Your task to perform on an android device: Set an alarm for 8pm Image 0: 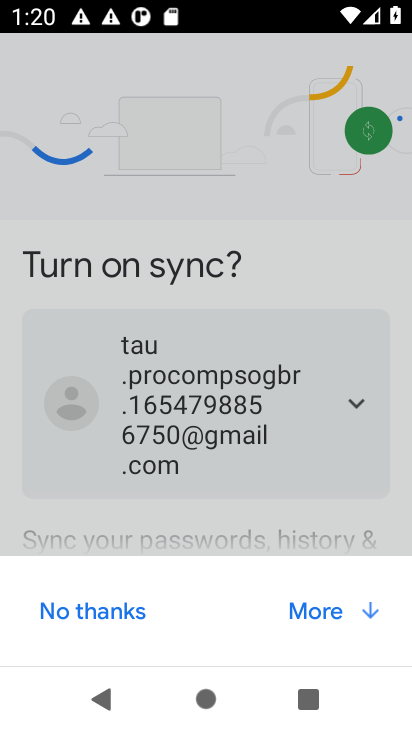
Step 0: press home button
Your task to perform on an android device: Set an alarm for 8pm Image 1: 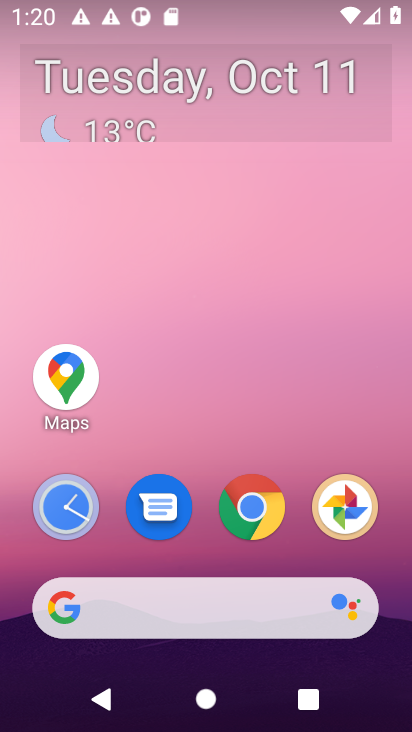
Step 1: click (77, 501)
Your task to perform on an android device: Set an alarm for 8pm Image 2: 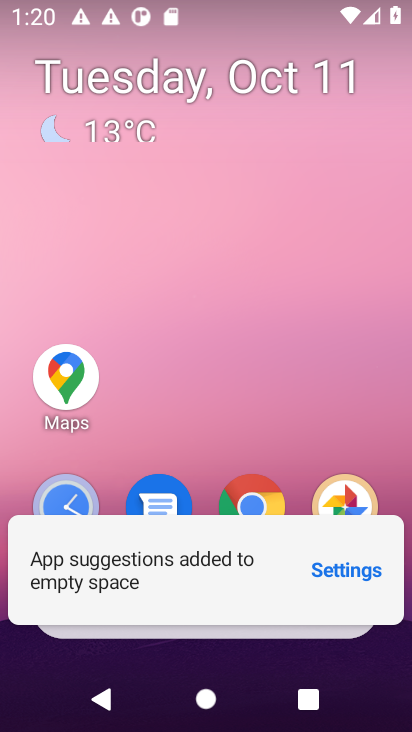
Step 2: click (248, 336)
Your task to perform on an android device: Set an alarm for 8pm Image 3: 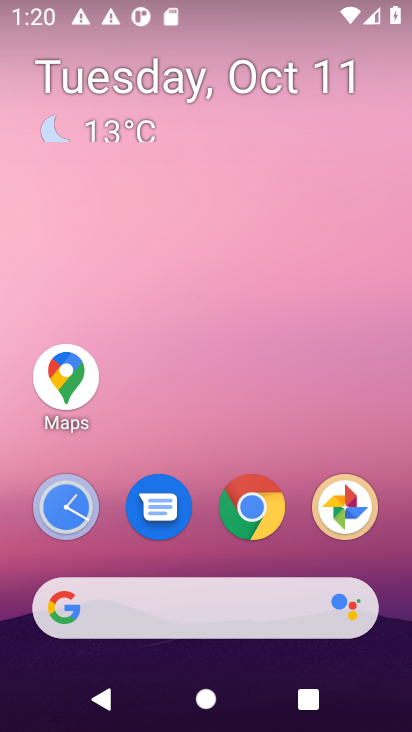
Step 3: drag from (206, 556) to (232, 43)
Your task to perform on an android device: Set an alarm for 8pm Image 4: 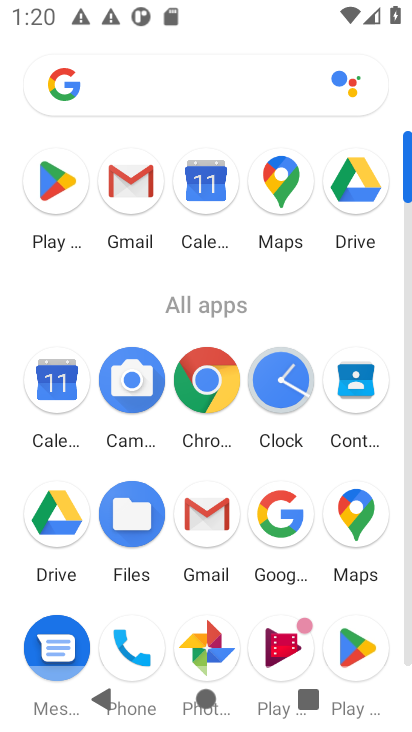
Step 4: click (276, 399)
Your task to perform on an android device: Set an alarm for 8pm Image 5: 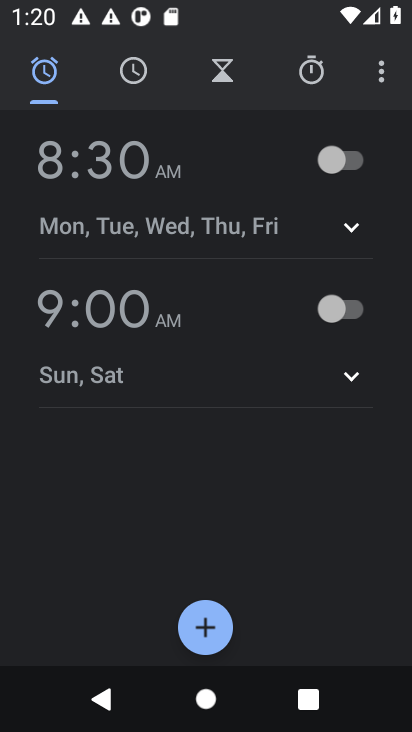
Step 5: click (210, 625)
Your task to perform on an android device: Set an alarm for 8pm Image 6: 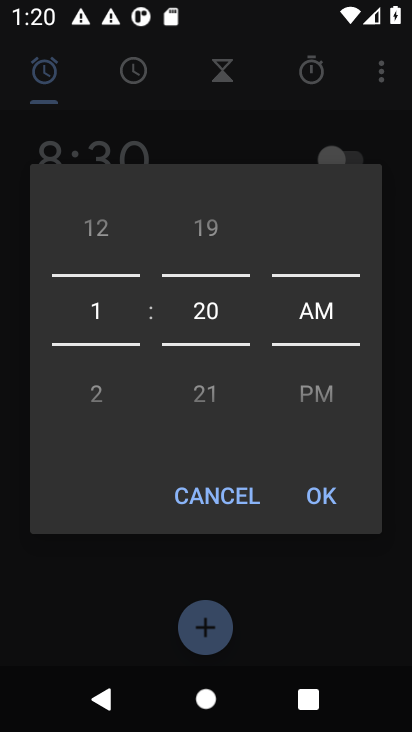
Step 6: click (90, 235)
Your task to perform on an android device: Set an alarm for 8pm Image 7: 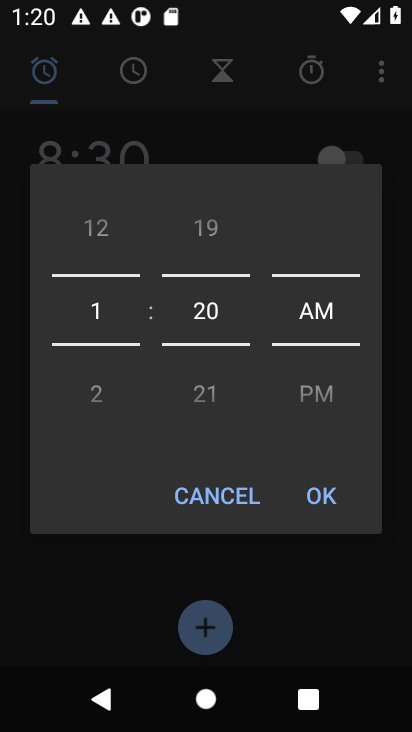
Step 7: drag from (94, 329) to (142, 59)
Your task to perform on an android device: Set an alarm for 8pm Image 8: 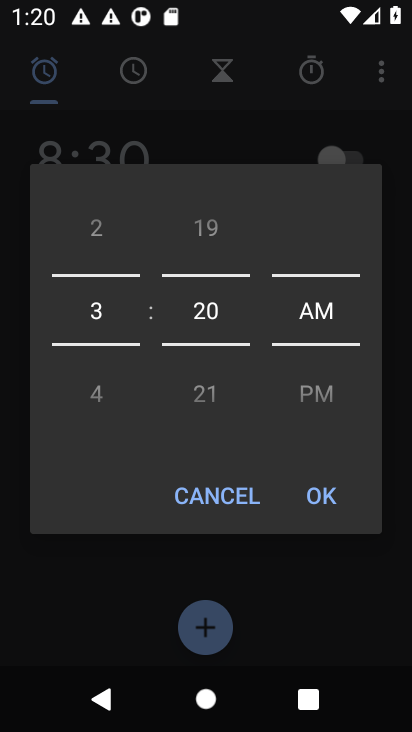
Step 8: drag from (111, 322) to (138, 59)
Your task to perform on an android device: Set an alarm for 8pm Image 9: 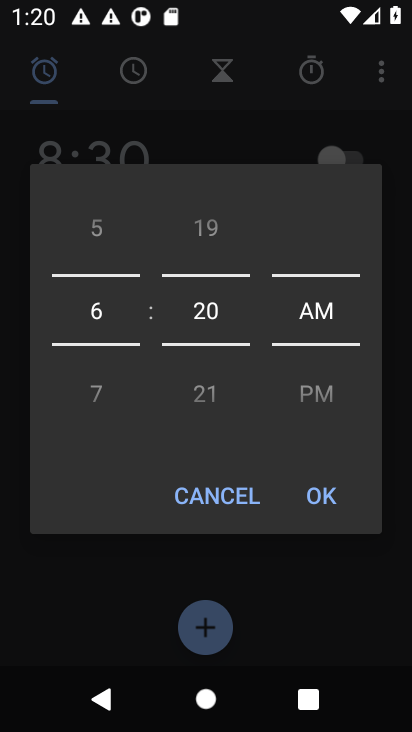
Step 9: drag from (100, 346) to (125, 125)
Your task to perform on an android device: Set an alarm for 8pm Image 10: 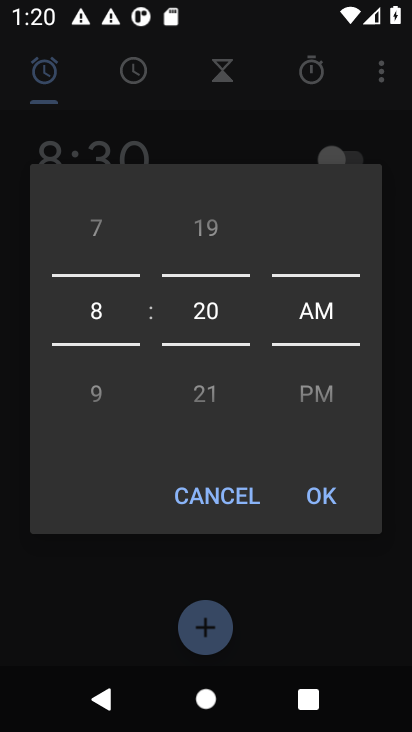
Step 10: drag from (213, 290) to (235, 476)
Your task to perform on an android device: Set an alarm for 8pm Image 11: 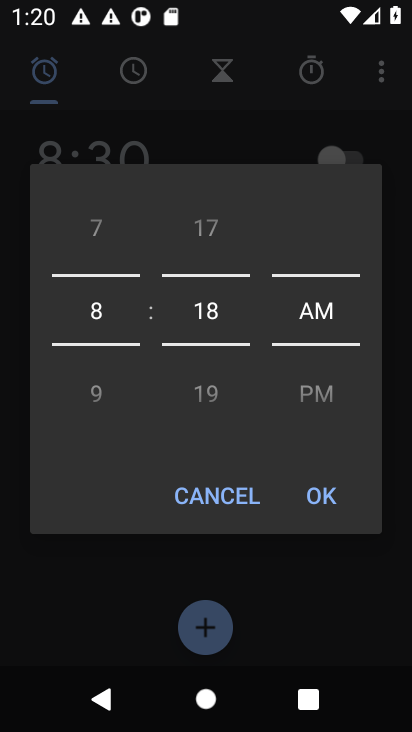
Step 11: drag from (210, 281) to (244, 466)
Your task to perform on an android device: Set an alarm for 8pm Image 12: 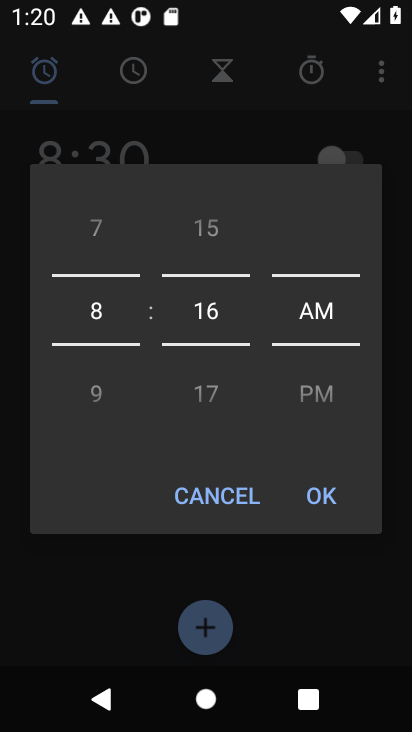
Step 12: drag from (198, 303) to (227, 447)
Your task to perform on an android device: Set an alarm for 8pm Image 13: 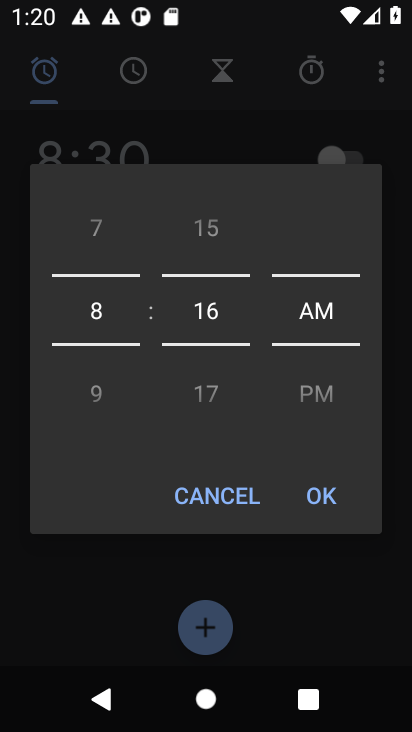
Step 13: drag from (209, 268) to (231, 435)
Your task to perform on an android device: Set an alarm for 8pm Image 14: 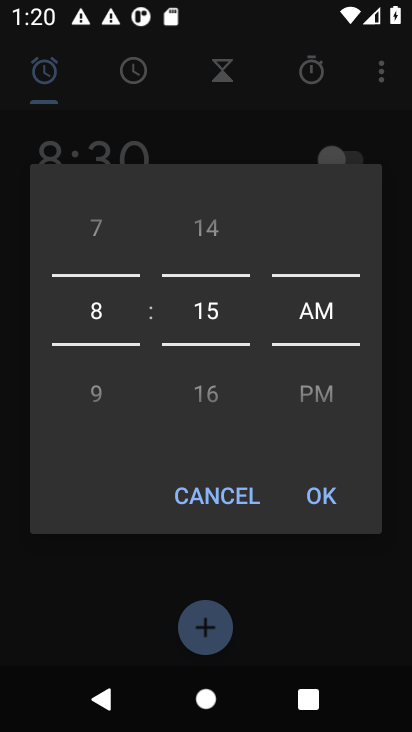
Step 14: drag from (215, 289) to (239, 467)
Your task to perform on an android device: Set an alarm for 8pm Image 15: 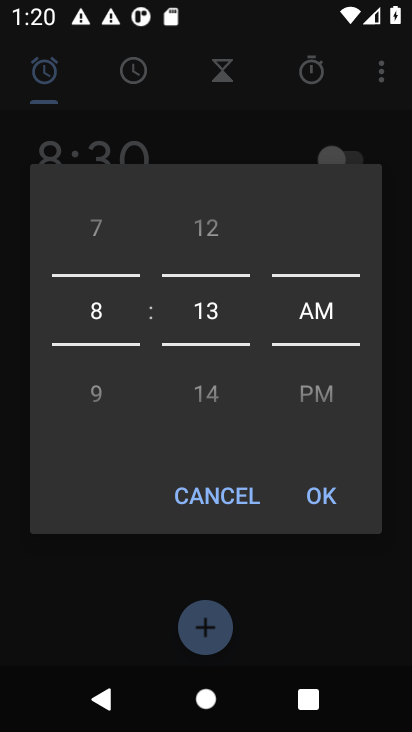
Step 15: drag from (223, 312) to (241, 460)
Your task to perform on an android device: Set an alarm for 8pm Image 16: 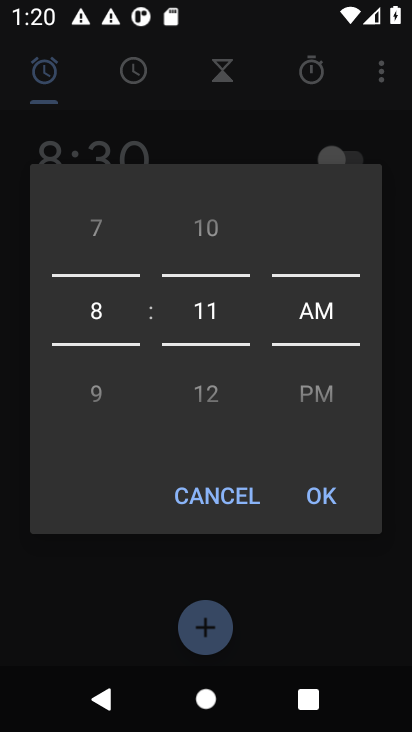
Step 16: drag from (233, 316) to (236, 455)
Your task to perform on an android device: Set an alarm for 8pm Image 17: 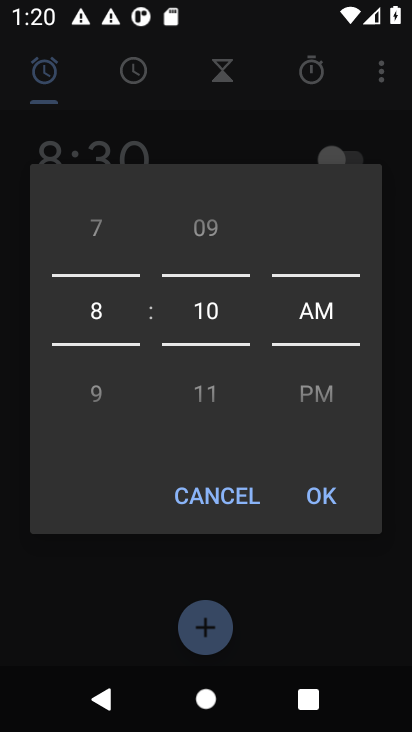
Step 17: drag from (223, 305) to (242, 455)
Your task to perform on an android device: Set an alarm for 8pm Image 18: 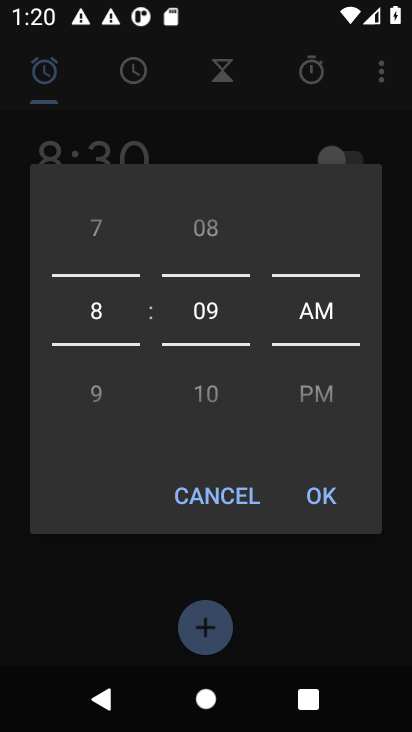
Step 18: drag from (222, 296) to (243, 461)
Your task to perform on an android device: Set an alarm for 8pm Image 19: 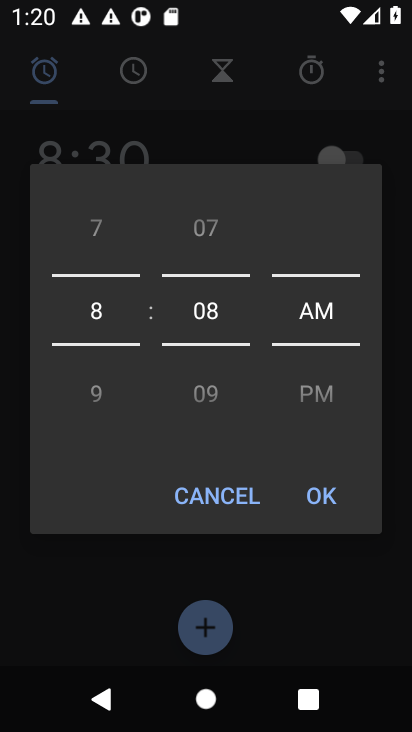
Step 19: drag from (231, 291) to (236, 436)
Your task to perform on an android device: Set an alarm for 8pm Image 20: 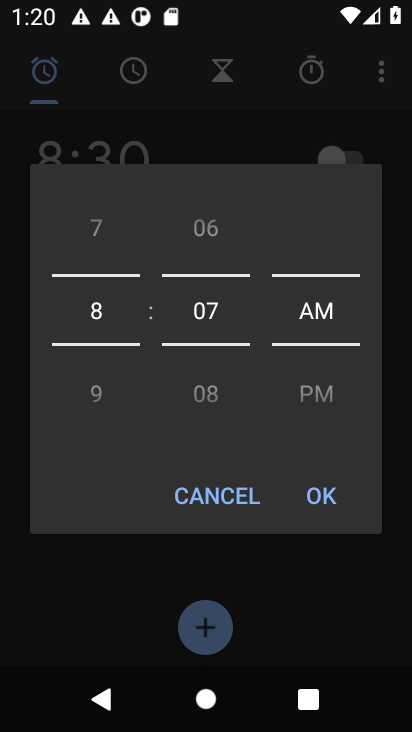
Step 20: drag from (215, 295) to (223, 462)
Your task to perform on an android device: Set an alarm for 8pm Image 21: 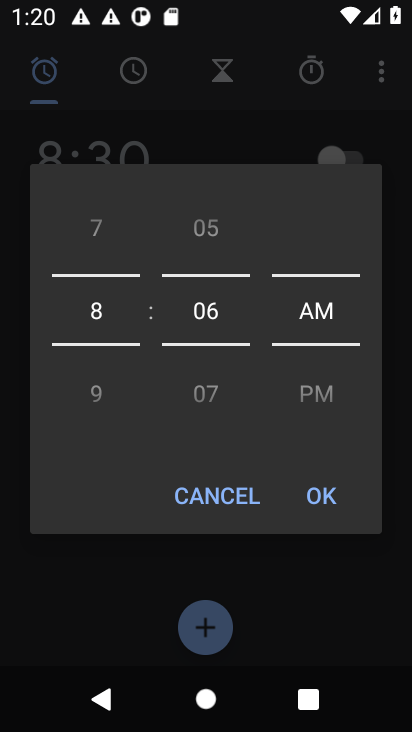
Step 21: drag from (226, 309) to (226, 469)
Your task to perform on an android device: Set an alarm for 8pm Image 22: 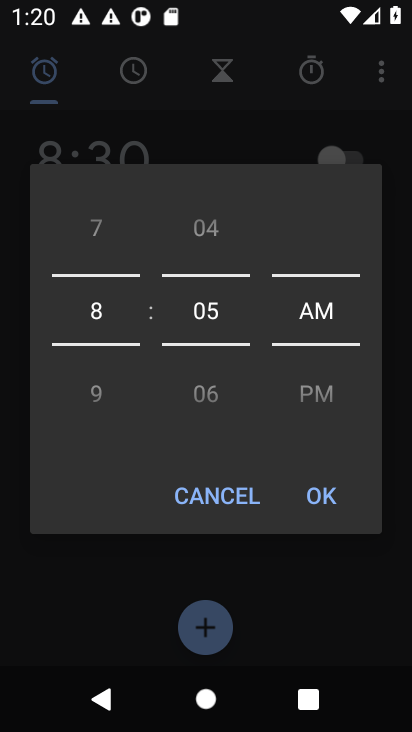
Step 22: drag from (211, 293) to (215, 453)
Your task to perform on an android device: Set an alarm for 8pm Image 23: 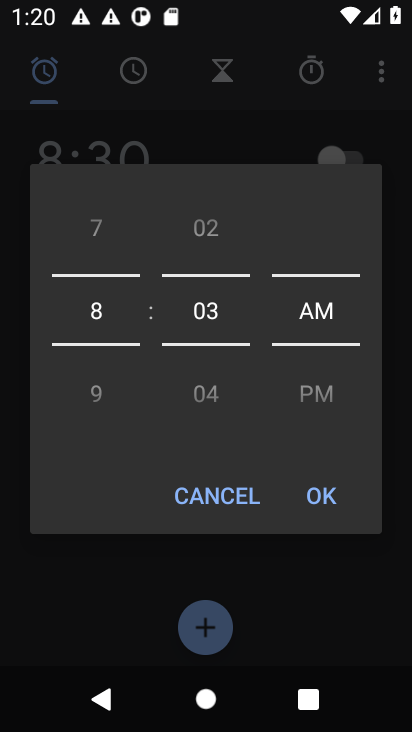
Step 23: drag from (229, 292) to (232, 440)
Your task to perform on an android device: Set an alarm for 8pm Image 24: 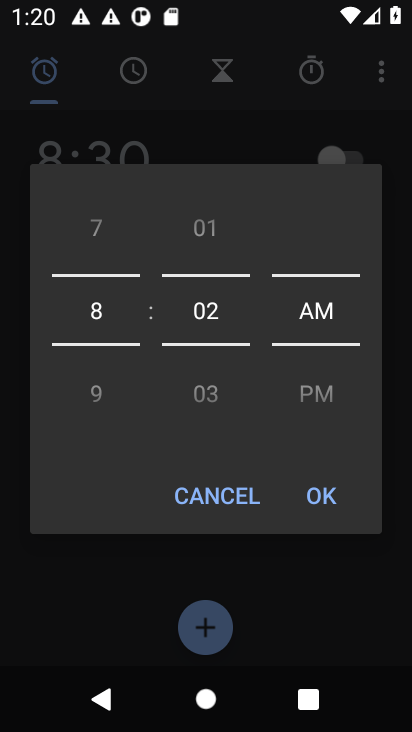
Step 24: drag from (213, 323) to (213, 447)
Your task to perform on an android device: Set an alarm for 8pm Image 25: 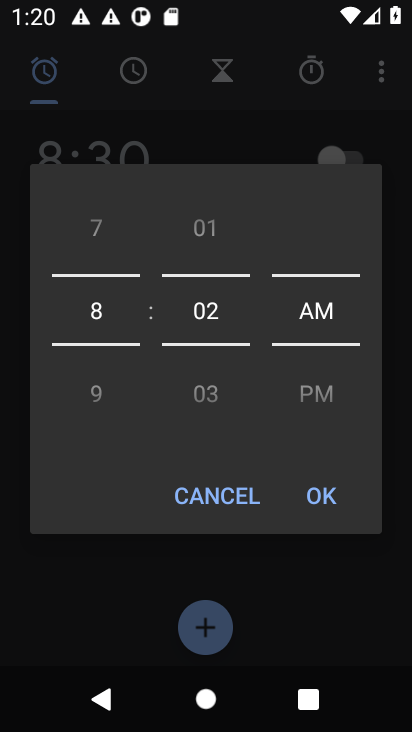
Step 25: drag from (226, 306) to (229, 446)
Your task to perform on an android device: Set an alarm for 8pm Image 26: 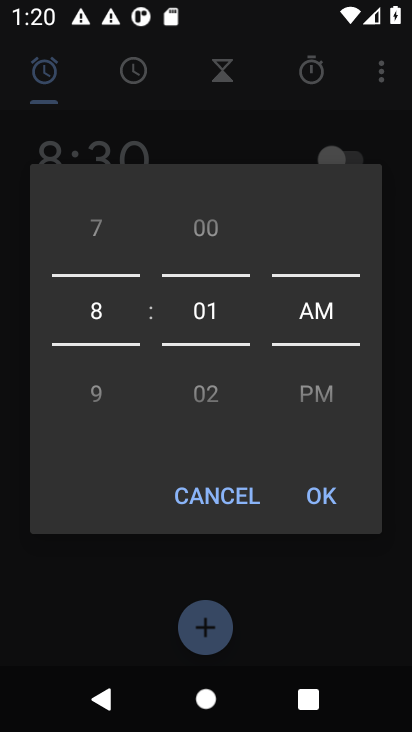
Step 26: drag from (214, 302) to (211, 437)
Your task to perform on an android device: Set an alarm for 8pm Image 27: 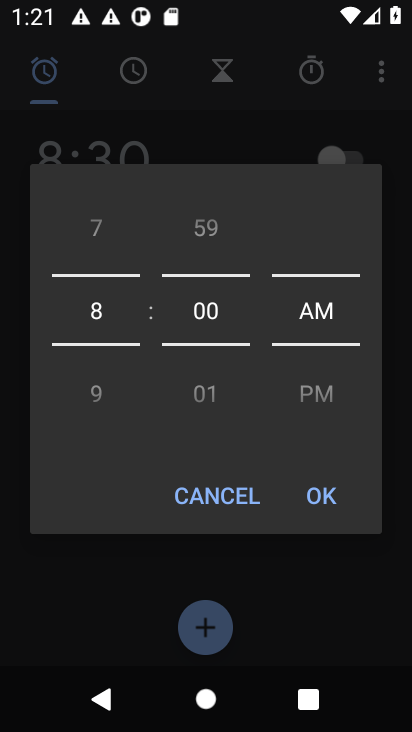
Step 27: drag from (333, 337) to (334, 218)
Your task to perform on an android device: Set an alarm for 8pm Image 28: 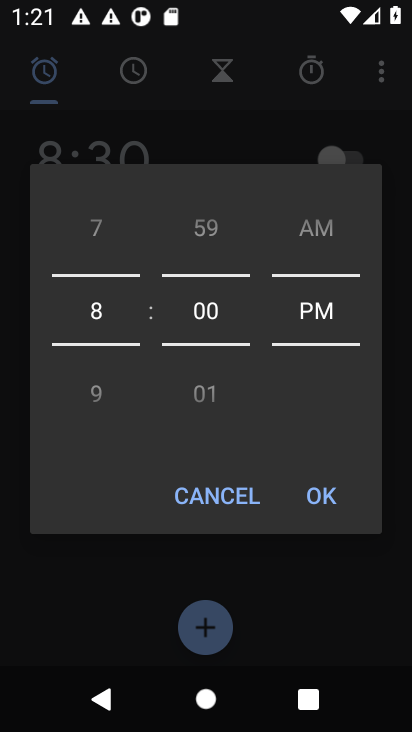
Step 28: click (330, 504)
Your task to perform on an android device: Set an alarm for 8pm Image 29: 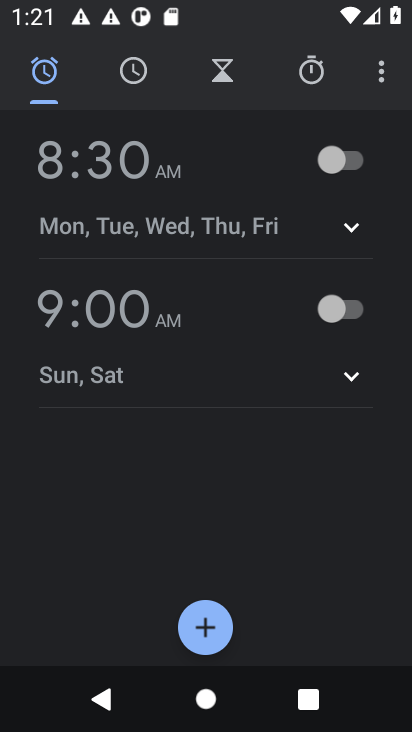
Step 29: task complete